Your task to perform on an android device: manage bookmarks in the chrome app Image 0: 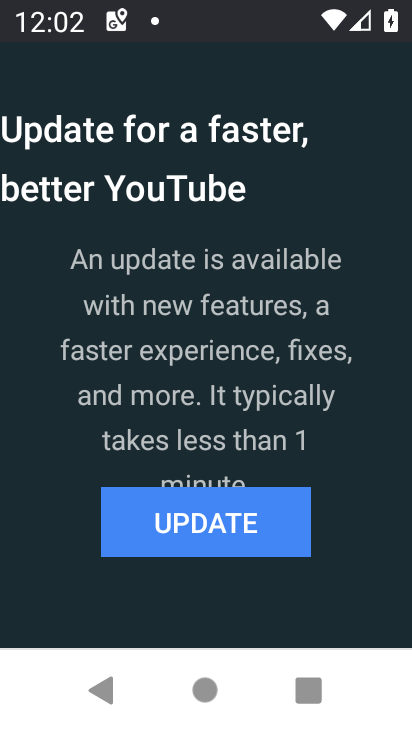
Step 0: press home button
Your task to perform on an android device: manage bookmarks in the chrome app Image 1: 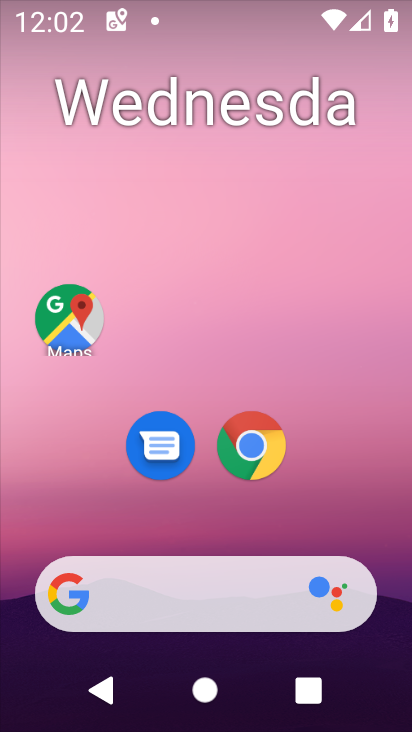
Step 1: click (252, 445)
Your task to perform on an android device: manage bookmarks in the chrome app Image 2: 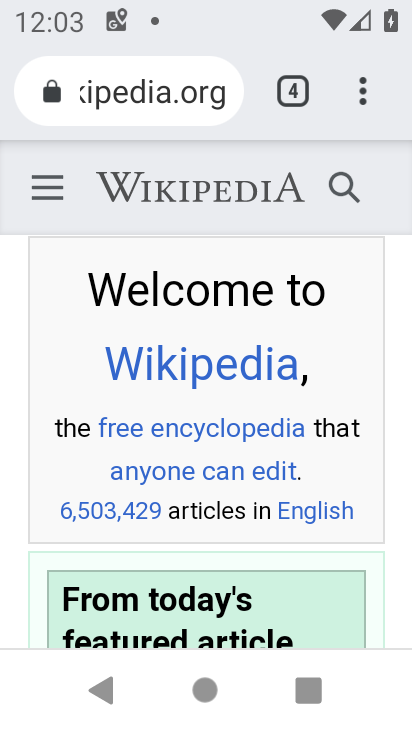
Step 2: click (364, 99)
Your task to perform on an android device: manage bookmarks in the chrome app Image 3: 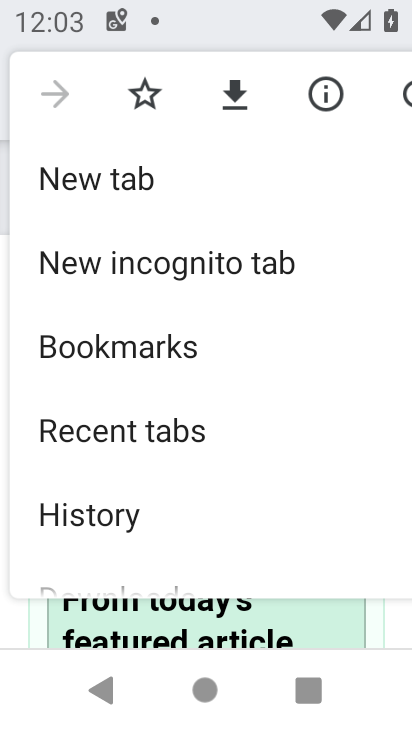
Step 3: click (130, 343)
Your task to perform on an android device: manage bookmarks in the chrome app Image 4: 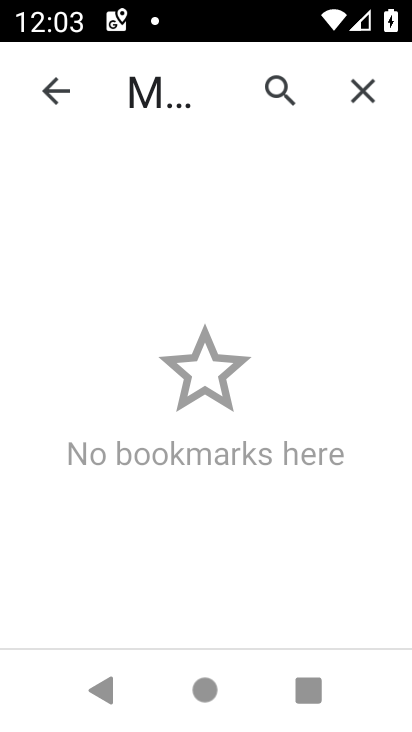
Step 4: task complete